Your task to perform on an android device: all mails in gmail Image 0: 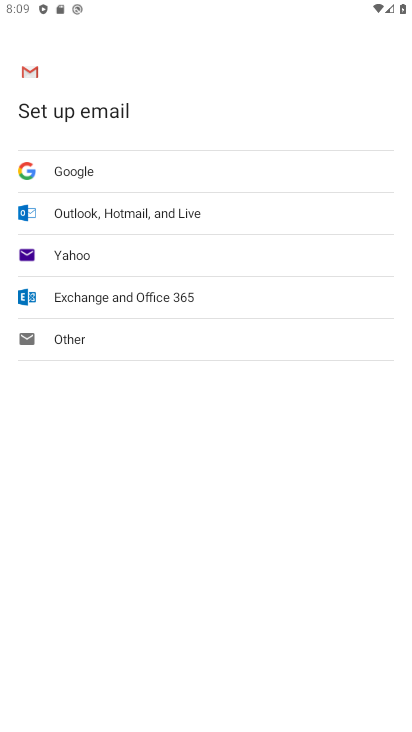
Step 0: press home button
Your task to perform on an android device: all mails in gmail Image 1: 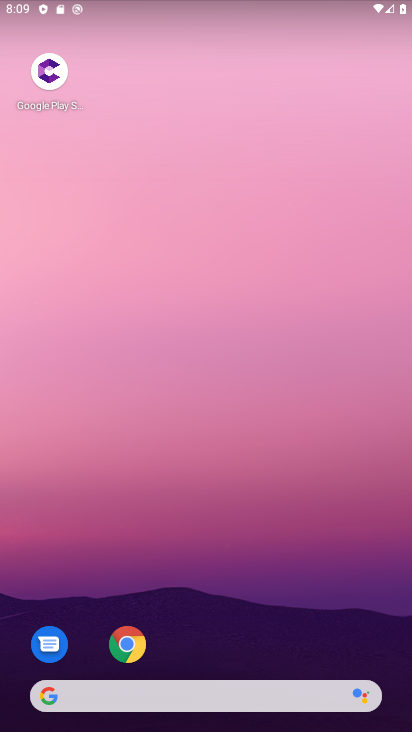
Step 1: drag from (235, 575) to (224, 160)
Your task to perform on an android device: all mails in gmail Image 2: 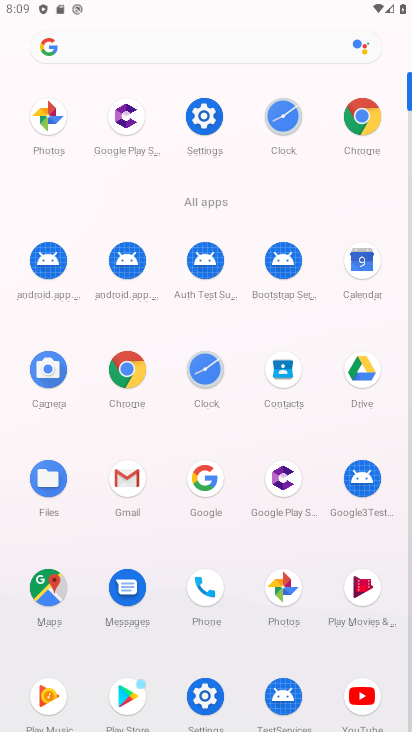
Step 2: click (125, 482)
Your task to perform on an android device: all mails in gmail Image 3: 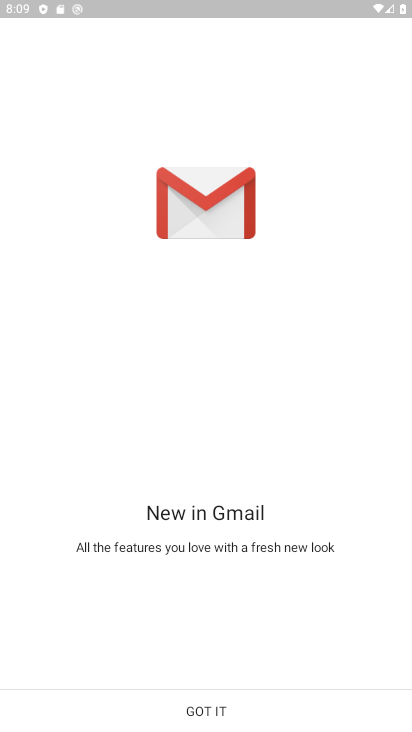
Step 3: click (238, 712)
Your task to perform on an android device: all mails in gmail Image 4: 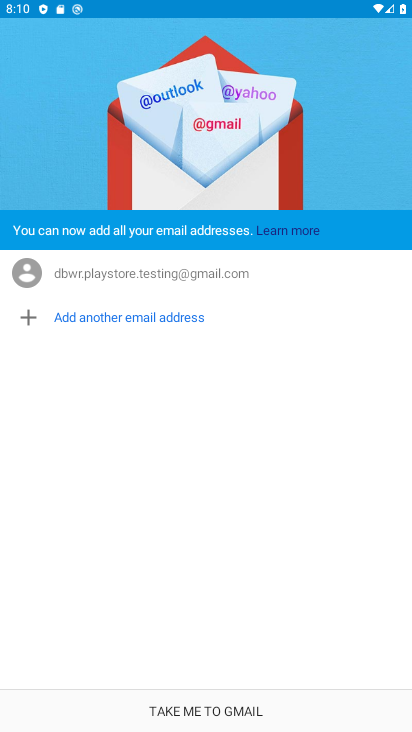
Step 4: click (231, 714)
Your task to perform on an android device: all mails in gmail Image 5: 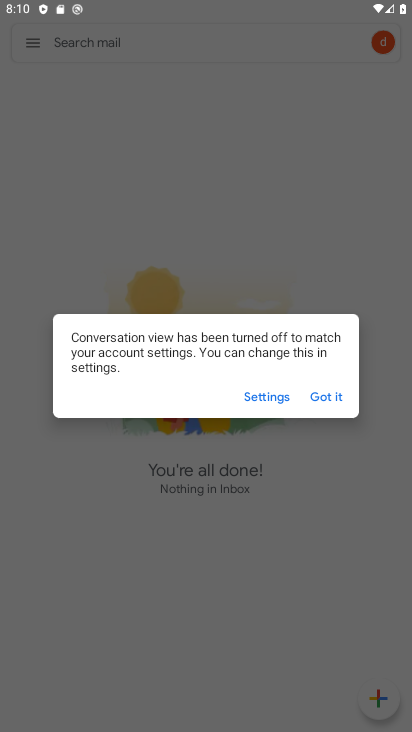
Step 5: click (326, 400)
Your task to perform on an android device: all mails in gmail Image 6: 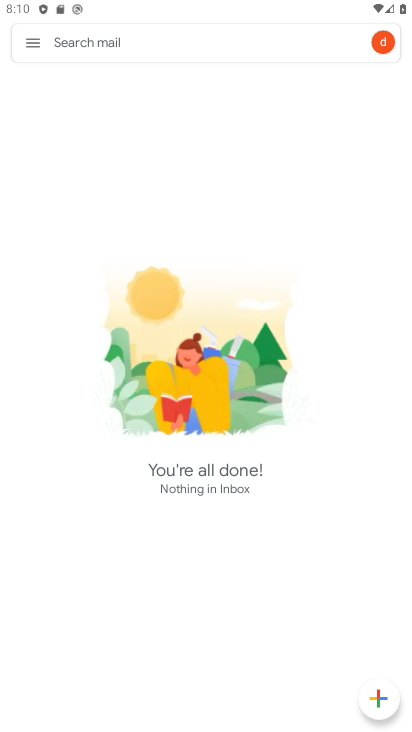
Step 6: click (40, 42)
Your task to perform on an android device: all mails in gmail Image 7: 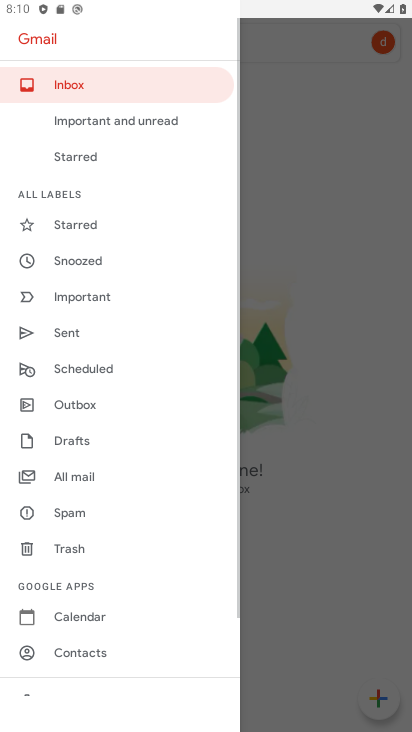
Step 7: click (111, 474)
Your task to perform on an android device: all mails in gmail Image 8: 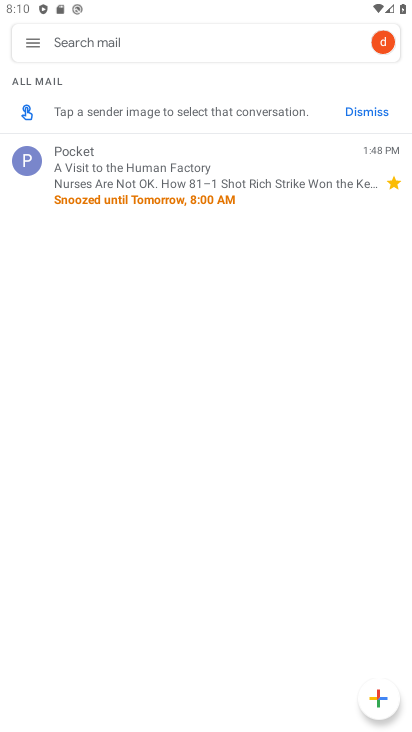
Step 8: task complete